Your task to perform on an android device: Clear the cart on costco. Search for razer blade on costco, select the first entry, add it to the cart, then select checkout. Image 0: 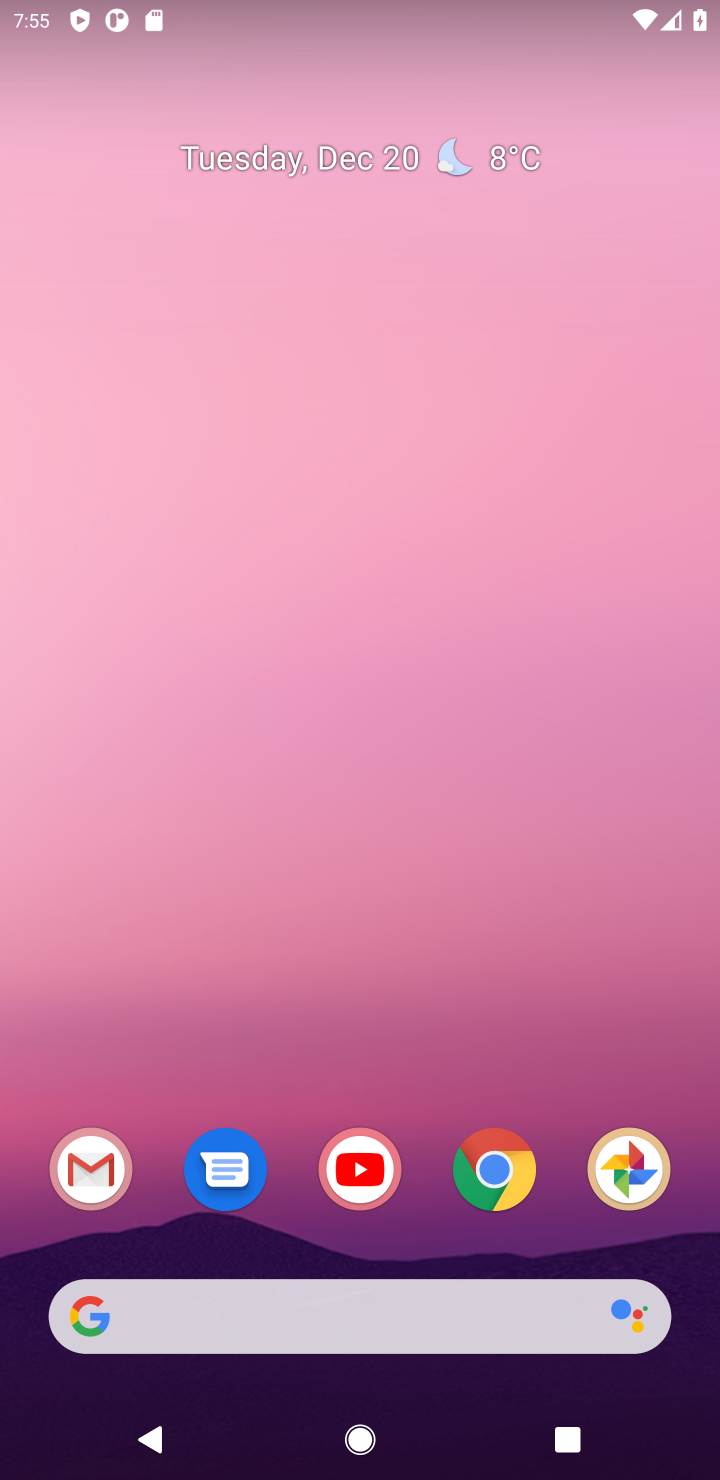
Step 0: click (518, 1159)
Your task to perform on an android device: Clear the cart on costco. Search for razer blade on costco, select the first entry, add it to the cart, then select checkout. Image 1: 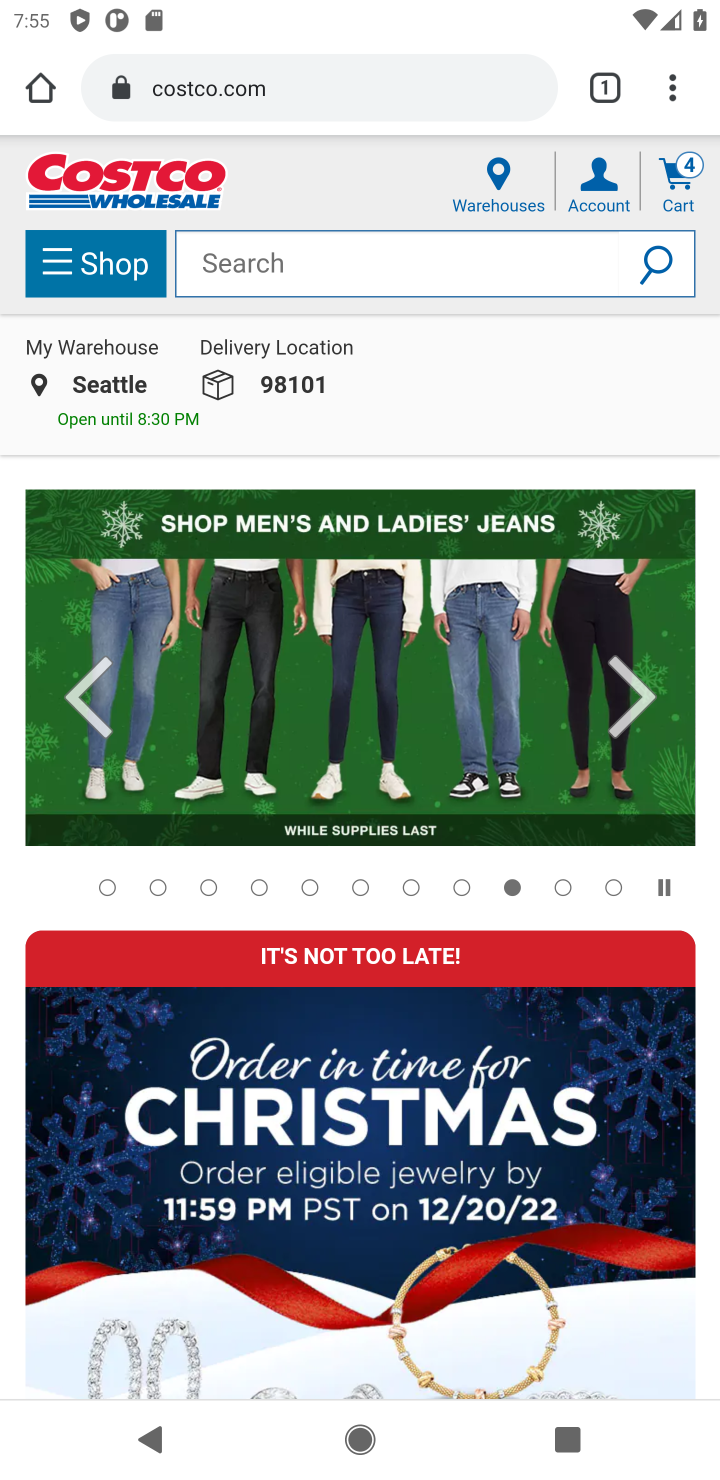
Step 1: click (304, 252)
Your task to perform on an android device: Clear the cart on costco. Search for razer blade on costco, select the first entry, add it to the cart, then select checkout. Image 2: 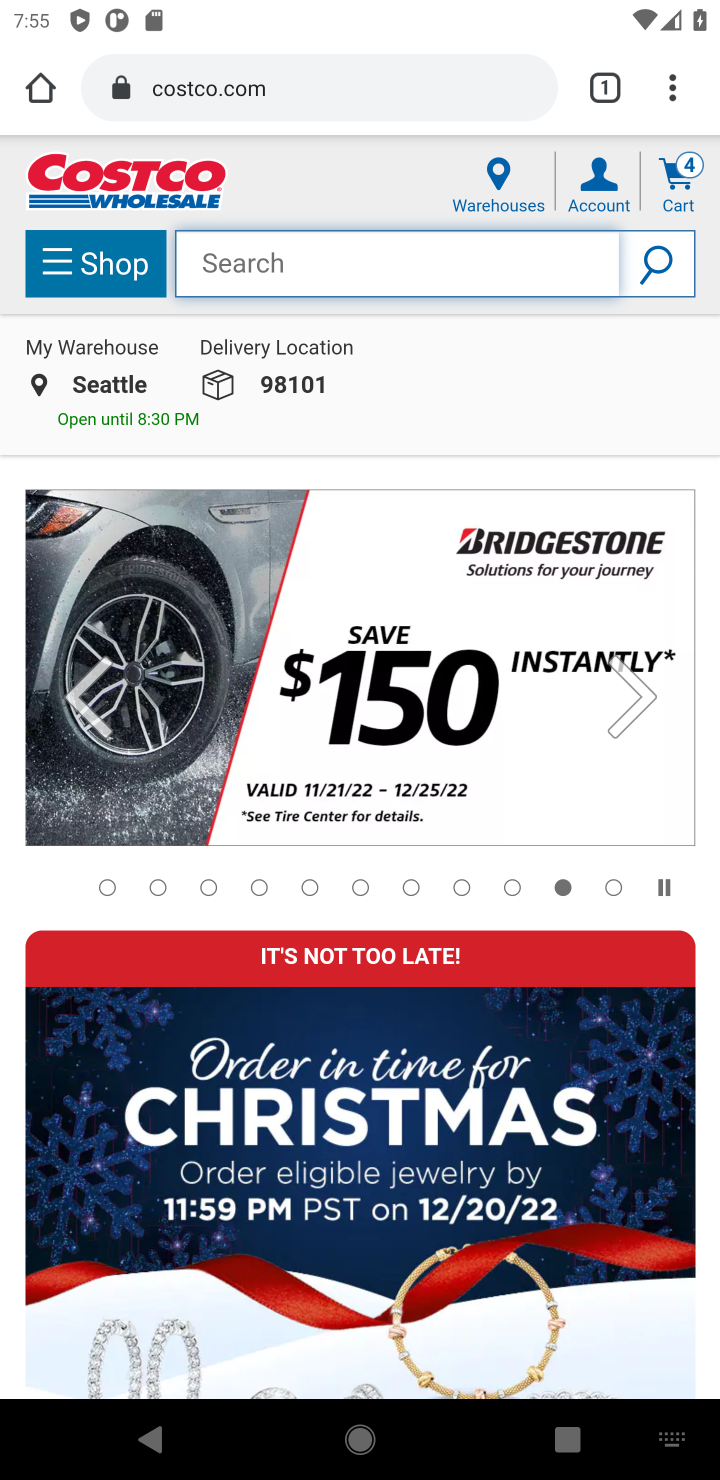
Step 2: type "razer blade"
Your task to perform on an android device: Clear the cart on costco. Search for razer blade on costco, select the first entry, add it to the cart, then select checkout. Image 3: 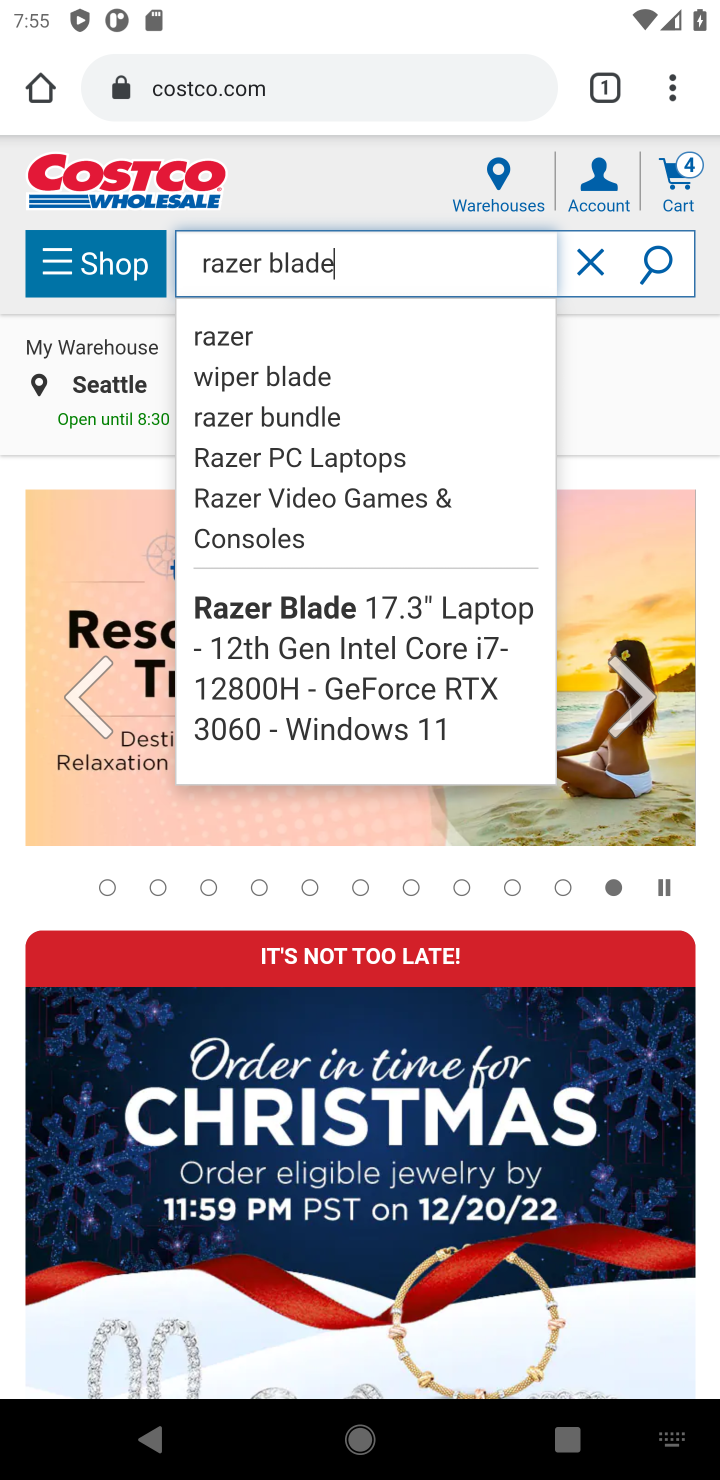
Step 3: click (657, 277)
Your task to perform on an android device: Clear the cart on costco. Search for razer blade on costco, select the first entry, add it to the cart, then select checkout. Image 4: 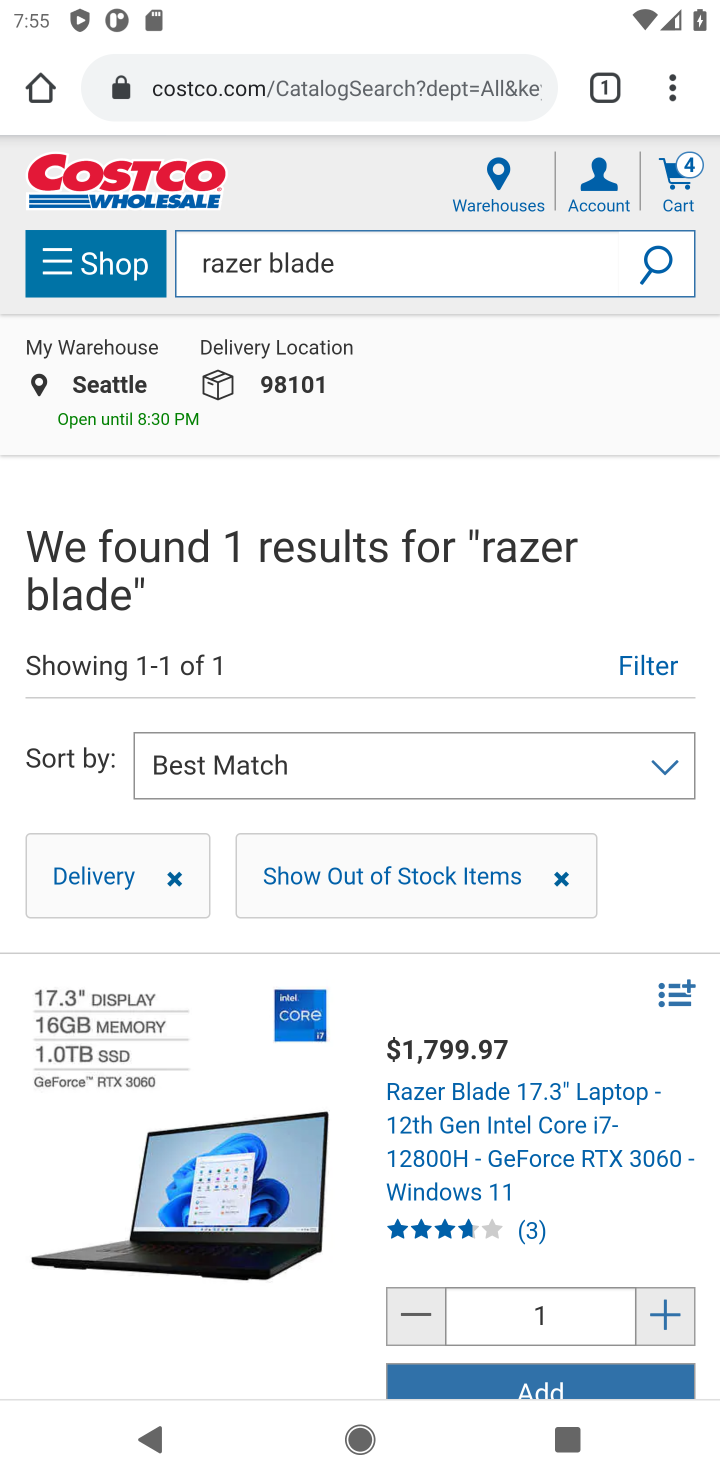
Step 4: click (637, 1369)
Your task to perform on an android device: Clear the cart on costco. Search for razer blade on costco, select the first entry, add it to the cart, then select checkout. Image 5: 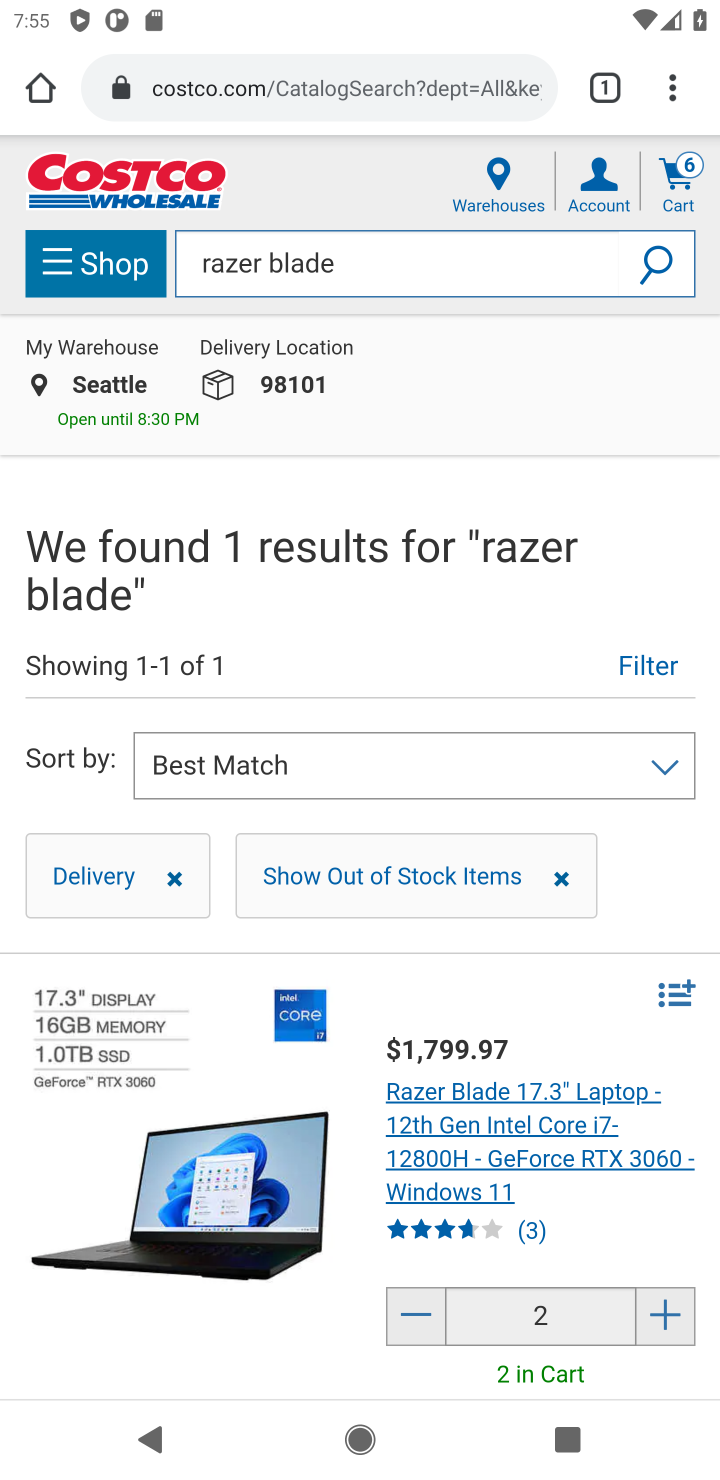
Step 5: task complete